Your task to perform on an android device: Open the calendar app, open the side menu, and click the "Day" option Image 0: 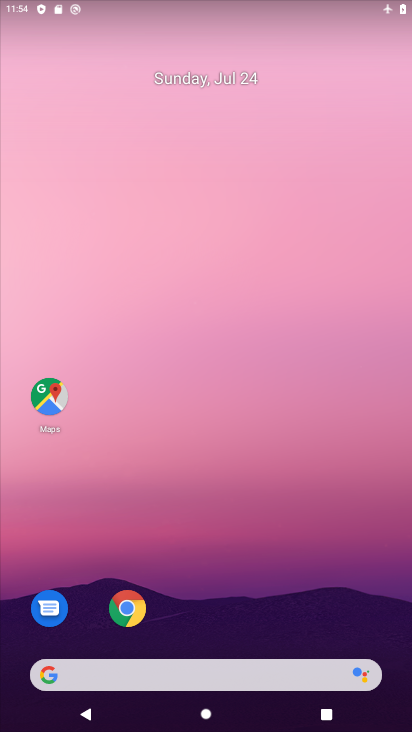
Step 0: drag from (205, 620) to (202, 118)
Your task to perform on an android device: Open the calendar app, open the side menu, and click the "Day" option Image 1: 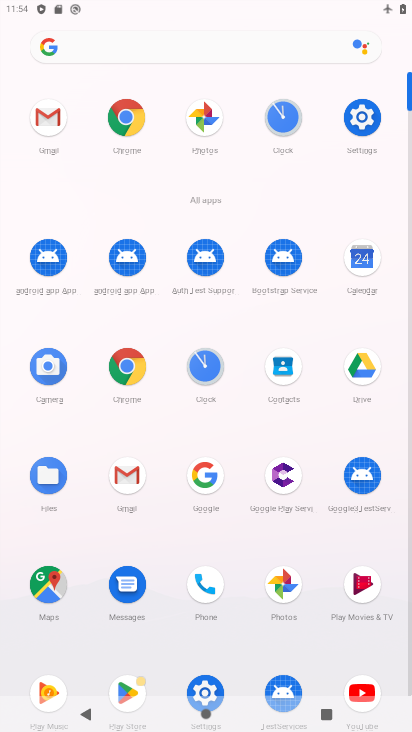
Step 1: click (354, 281)
Your task to perform on an android device: Open the calendar app, open the side menu, and click the "Day" option Image 2: 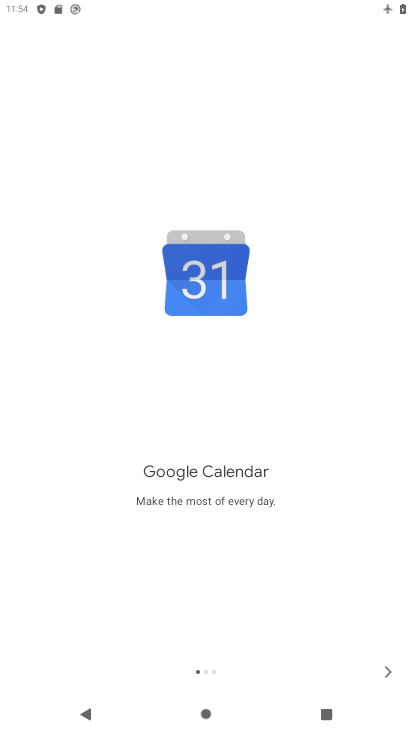
Step 2: click (385, 665)
Your task to perform on an android device: Open the calendar app, open the side menu, and click the "Day" option Image 3: 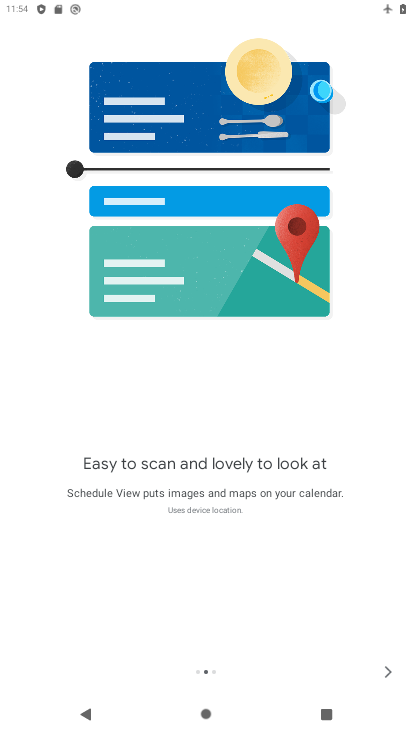
Step 3: click (385, 665)
Your task to perform on an android device: Open the calendar app, open the side menu, and click the "Day" option Image 4: 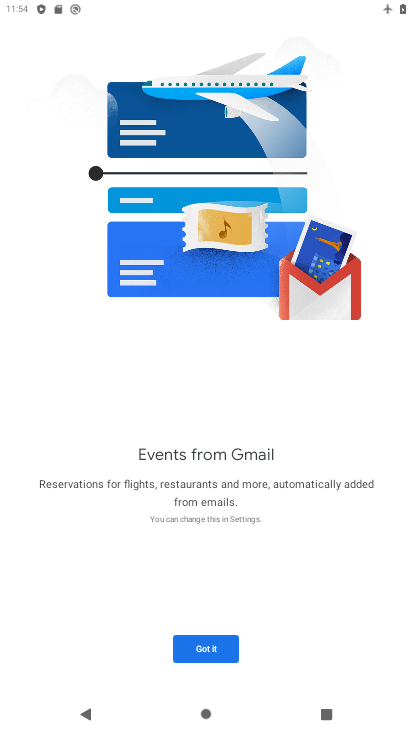
Step 4: click (192, 648)
Your task to perform on an android device: Open the calendar app, open the side menu, and click the "Day" option Image 5: 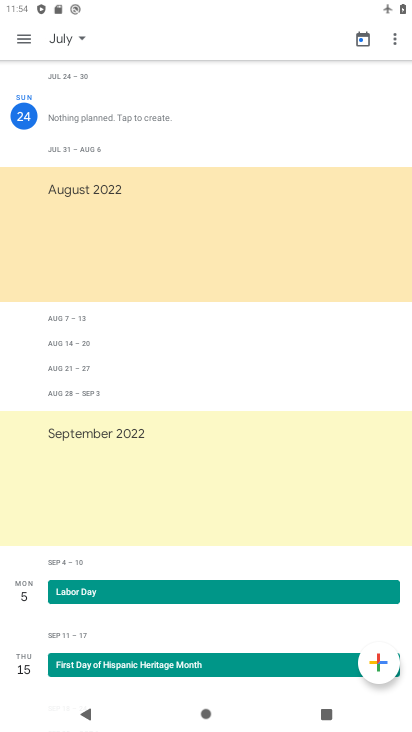
Step 5: click (18, 39)
Your task to perform on an android device: Open the calendar app, open the side menu, and click the "Day" option Image 6: 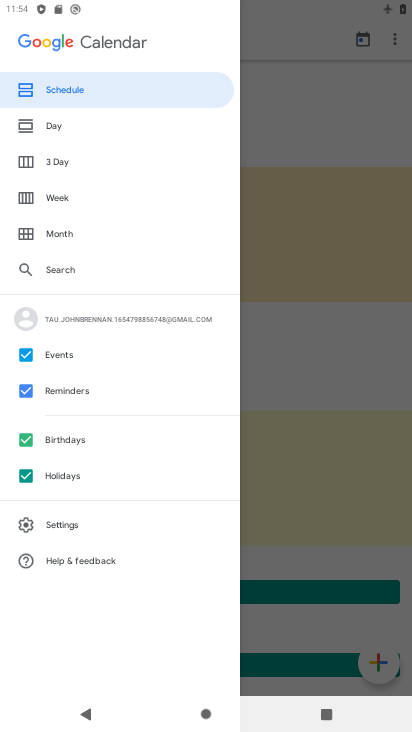
Step 6: click (72, 128)
Your task to perform on an android device: Open the calendar app, open the side menu, and click the "Day" option Image 7: 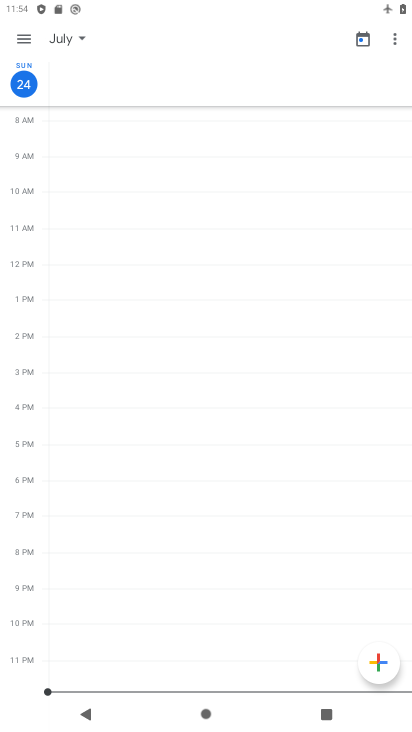
Step 7: click (20, 45)
Your task to perform on an android device: Open the calendar app, open the side menu, and click the "Day" option Image 8: 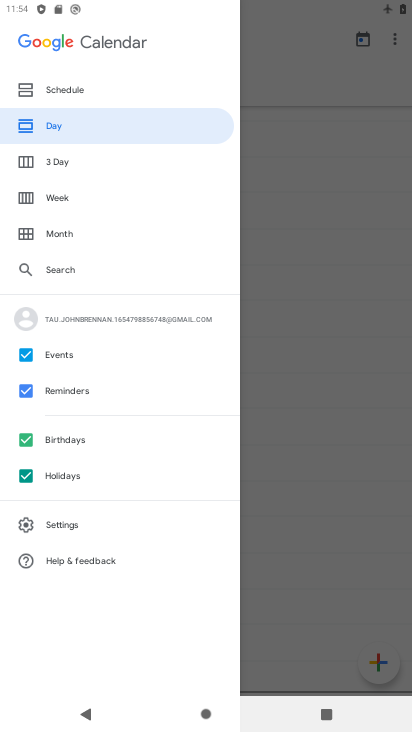
Step 8: task complete